Your task to perform on an android device: Go to Android settings Image 0: 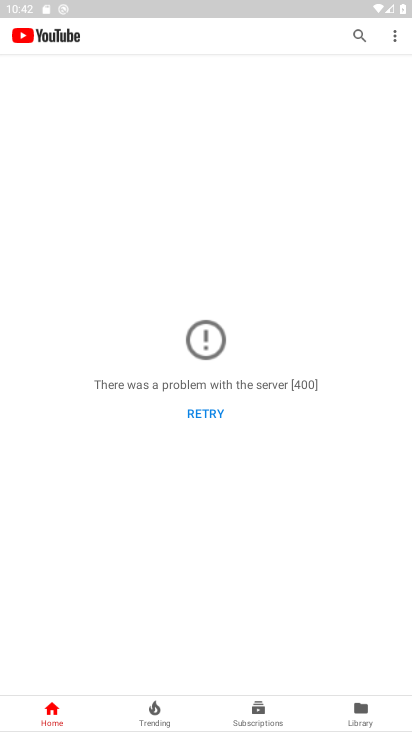
Step 0: press home button
Your task to perform on an android device: Go to Android settings Image 1: 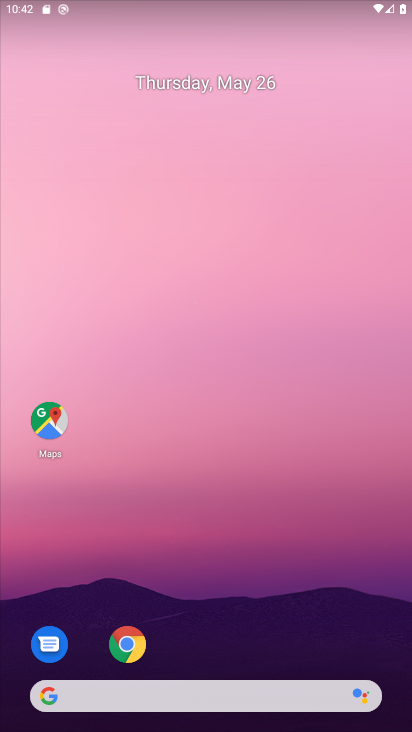
Step 1: drag from (364, 638) to (359, 216)
Your task to perform on an android device: Go to Android settings Image 2: 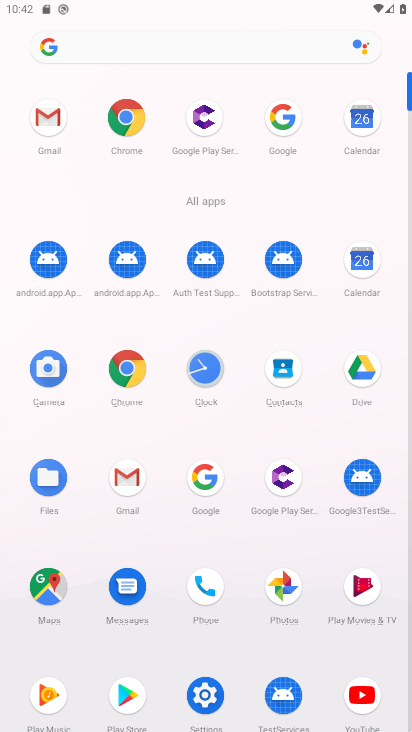
Step 2: click (206, 698)
Your task to perform on an android device: Go to Android settings Image 3: 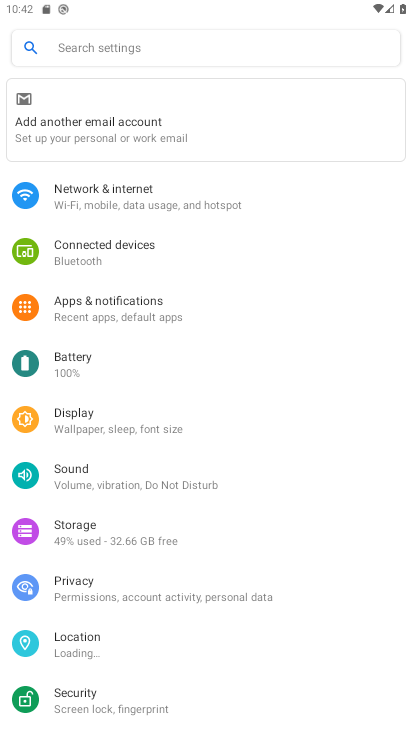
Step 3: drag from (326, 612) to (340, 504)
Your task to perform on an android device: Go to Android settings Image 4: 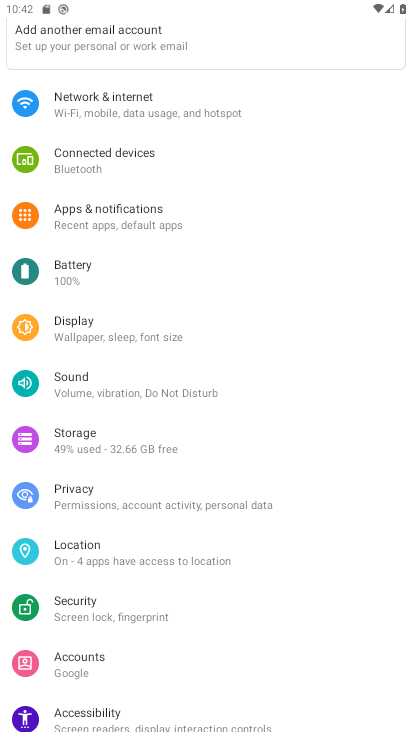
Step 4: drag from (330, 652) to (343, 452)
Your task to perform on an android device: Go to Android settings Image 5: 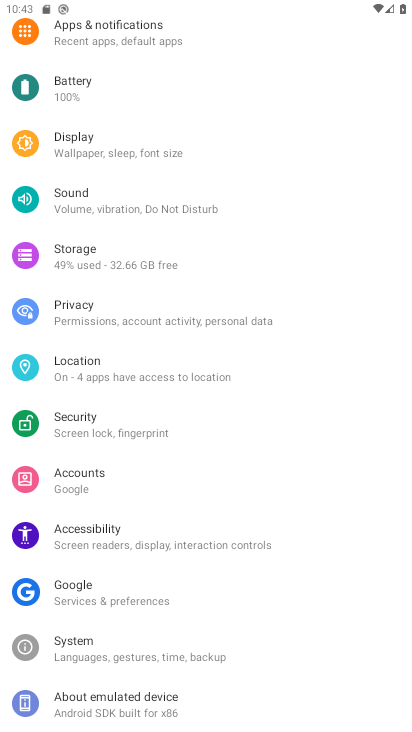
Step 5: drag from (332, 663) to (342, 467)
Your task to perform on an android device: Go to Android settings Image 6: 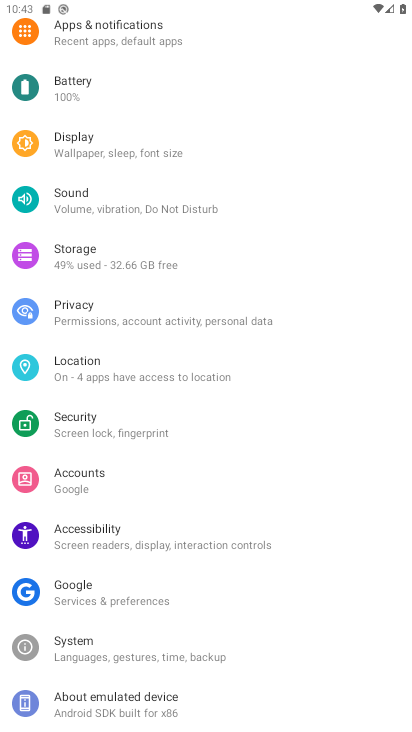
Step 6: click (228, 650)
Your task to perform on an android device: Go to Android settings Image 7: 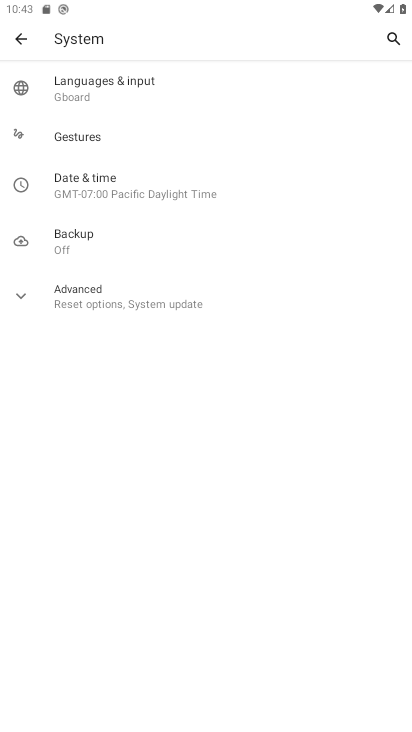
Step 7: click (197, 291)
Your task to perform on an android device: Go to Android settings Image 8: 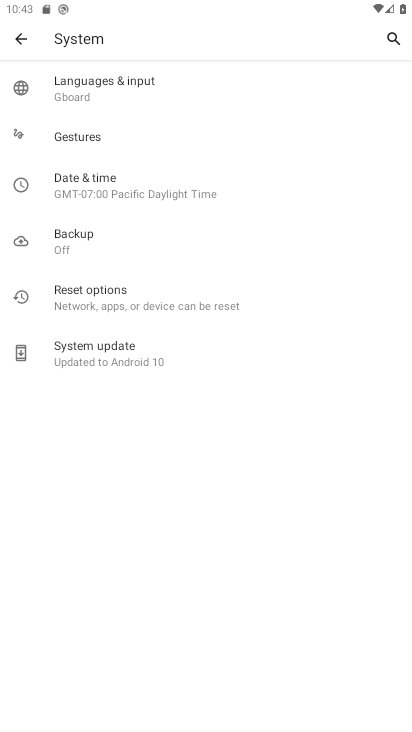
Step 8: task complete